Your task to perform on an android device: Open calendar and show me the first week of next month Image 0: 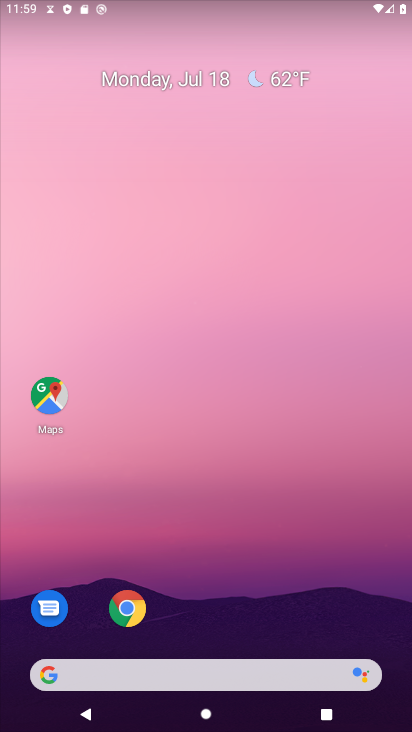
Step 0: drag from (258, 632) to (235, 158)
Your task to perform on an android device: Open calendar and show me the first week of next month Image 1: 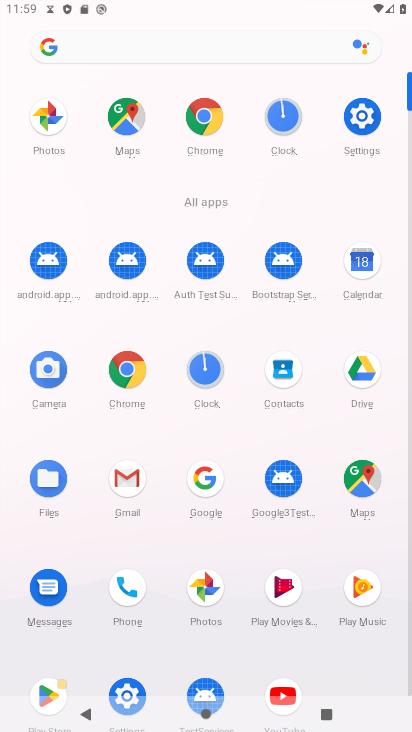
Step 1: click (362, 253)
Your task to perform on an android device: Open calendar and show me the first week of next month Image 2: 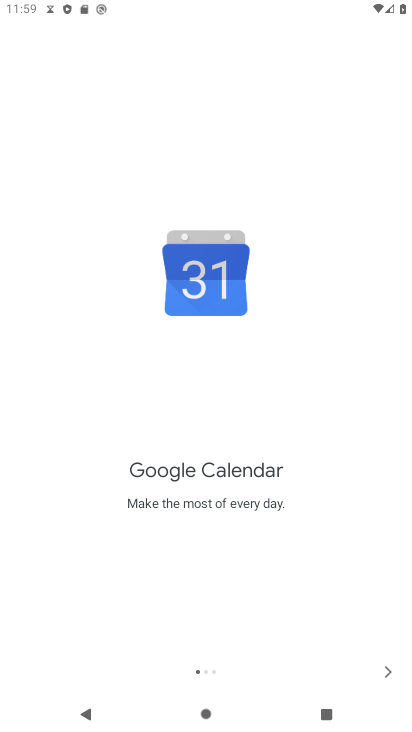
Step 2: click (388, 676)
Your task to perform on an android device: Open calendar and show me the first week of next month Image 3: 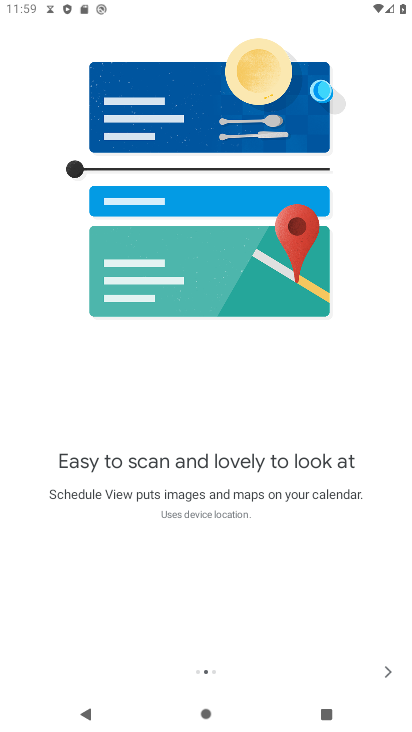
Step 3: click (388, 676)
Your task to perform on an android device: Open calendar and show me the first week of next month Image 4: 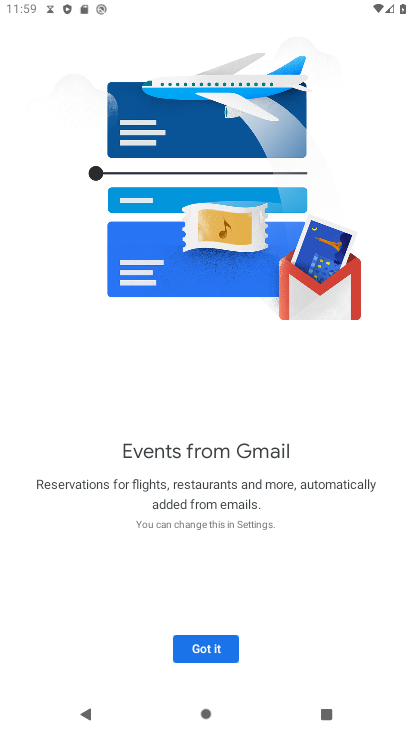
Step 4: click (228, 645)
Your task to perform on an android device: Open calendar and show me the first week of next month Image 5: 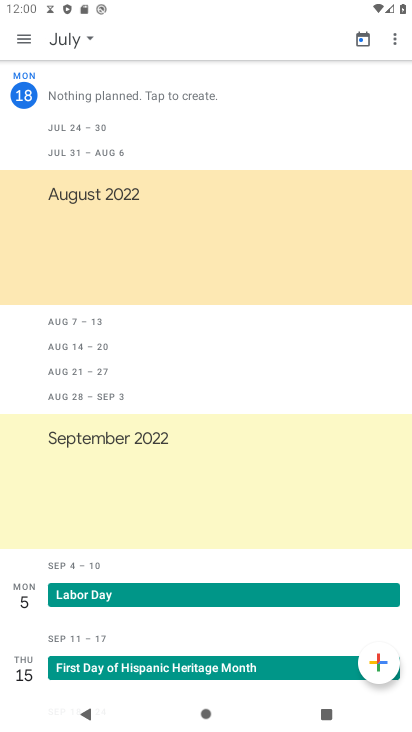
Step 5: click (28, 40)
Your task to perform on an android device: Open calendar and show me the first week of next month Image 6: 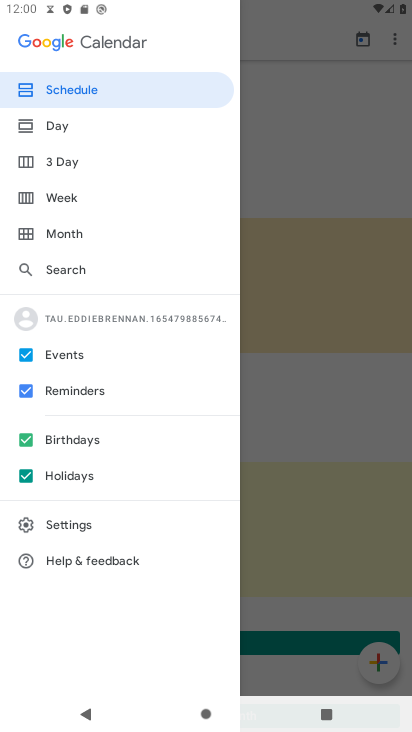
Step 6: click (60, 206)
Your task to perform on an android device: Open calendar and show me the first week of next month Image 7: 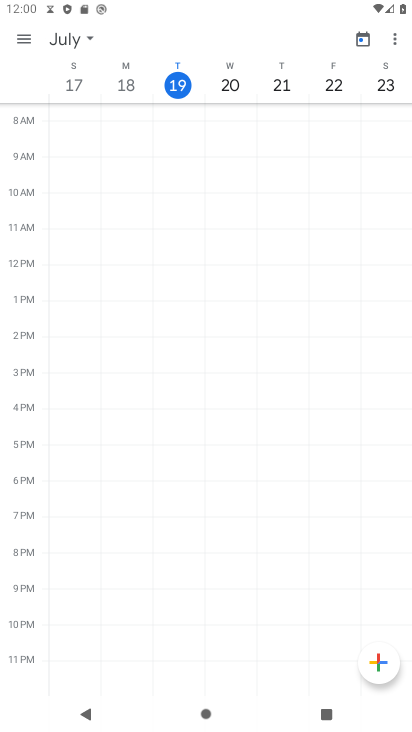
Step 7: click (82, 35)
Your task to perform on an android device: Open calendar and show me the first week of next month Image 8: 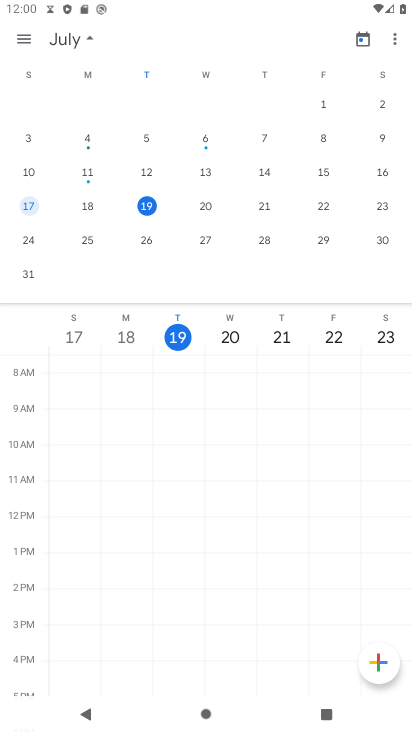
Step 8: drag from (387, 232) to (6, 224)
Your task to perform on an android device: Open calendar and show me the first week of next month Image 9: 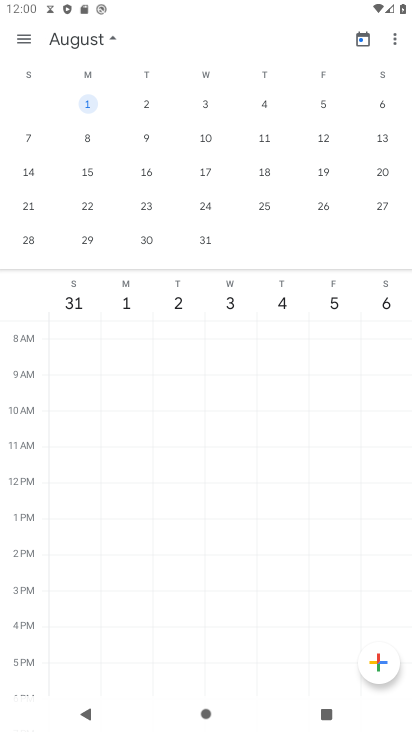
Step 9: click (204, 98)
Your task to perform on an android device: Open calendar and show me the first week of next month Image 10: 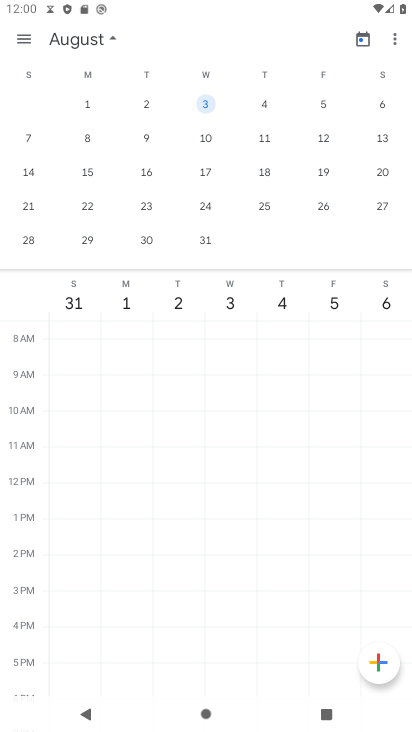
Step 10: task complete